Your task to perform on an android device: Open accessibility settings Image 0: 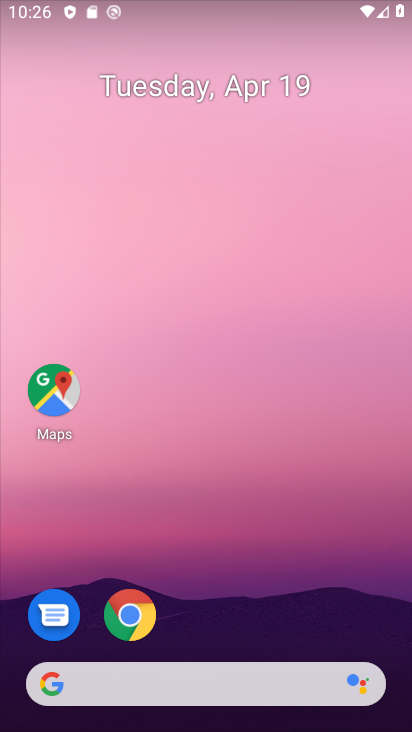
Step 0: drag from (190, 665) to (331, 41)
Your task to perform on an android device: Open accessibility settings Image 1: 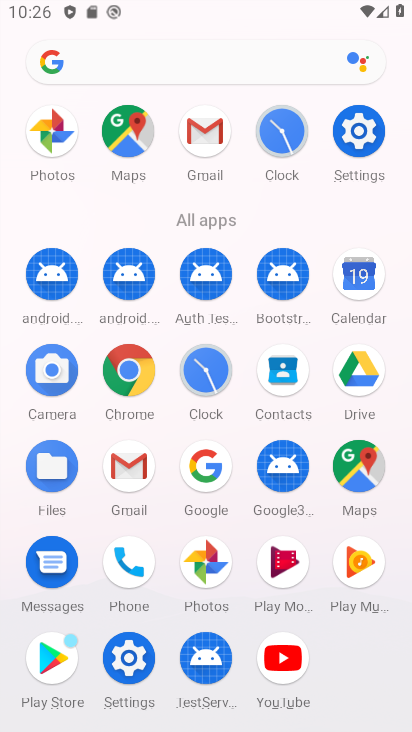
Step 1: click (357, 124)
Your task to perform on an android device: Open accessibility settings Image 2: 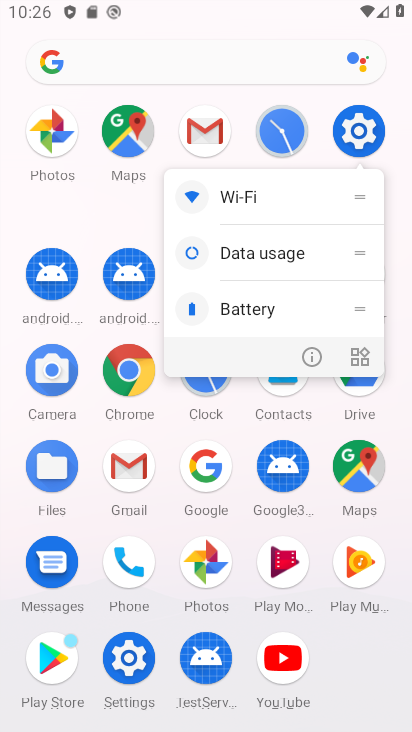
Step 2: click (357, 124)
Your task to perform on an android device: Open accessibility settings Image 3: 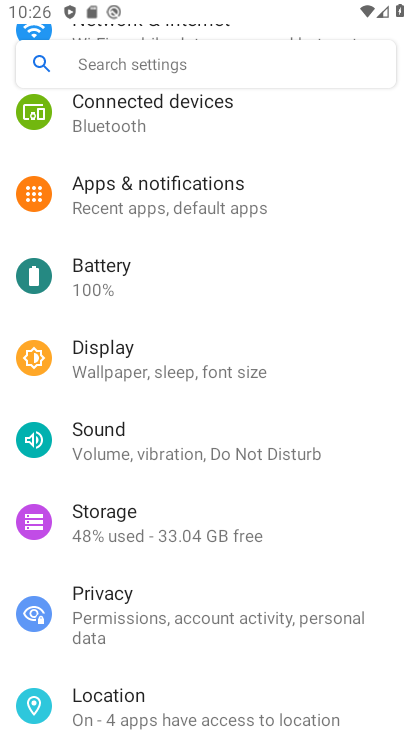
Step 3: drag from (284, 238) to (270, 632)
Your task to perform on an android device: Open accessibility settings Image 4: 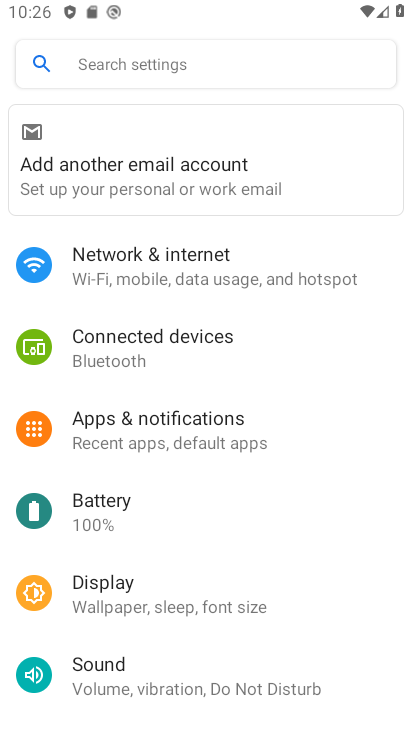
Step 4: drag from (186, 615) to (400, 181)
Your task to perform on an android device: Open accessibility settings Image 5: 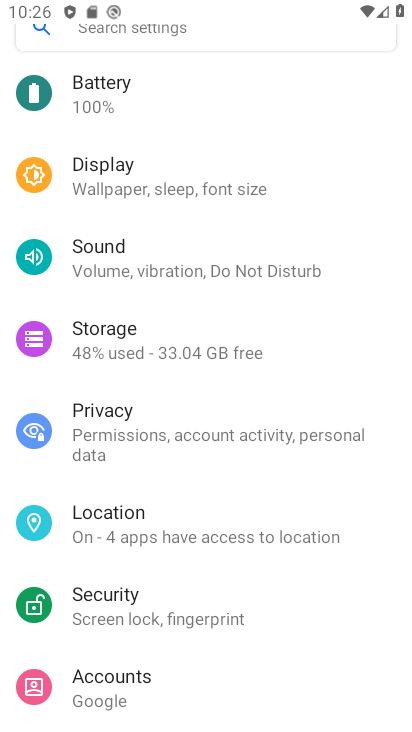
Step 5: drag from (217, 623) to (289, 348)
Your task to perform on an android device: Open accessibility settings Image 6: 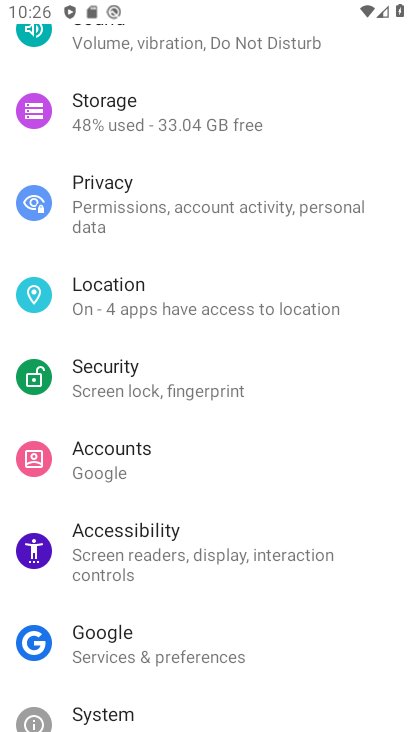
Step 6: click (206, 540)
Your task to perform on an android device: Open accessibility settings Image 7: 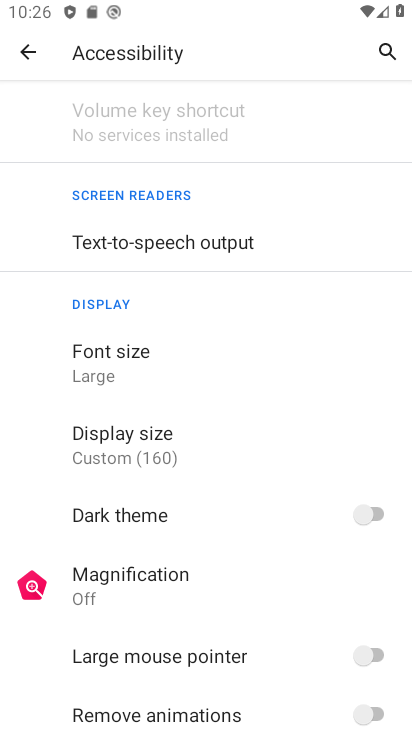
Step 7: task complete